Your task to perform on an android device: check battery use Image 0: 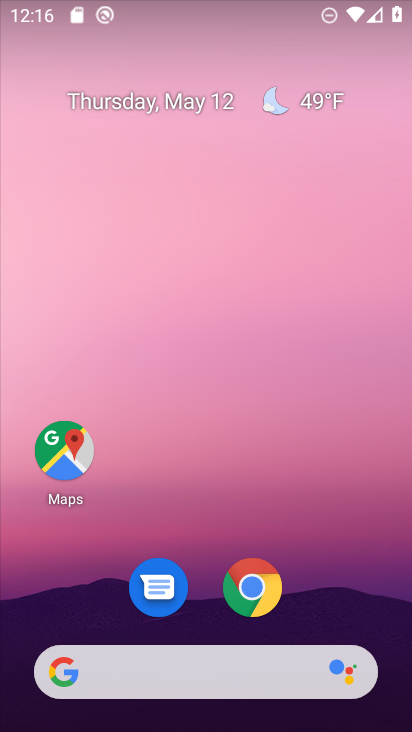
Step 0: drag from (332, 627) to (334, 176)
Your task to perform on an android device: check battery use Image 1: 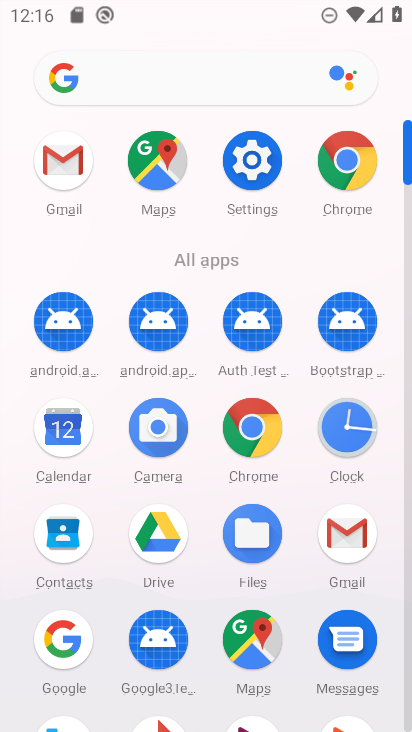
Step 1: click (242, 171)
Your task to perform on an android device: check battery use Image 2: 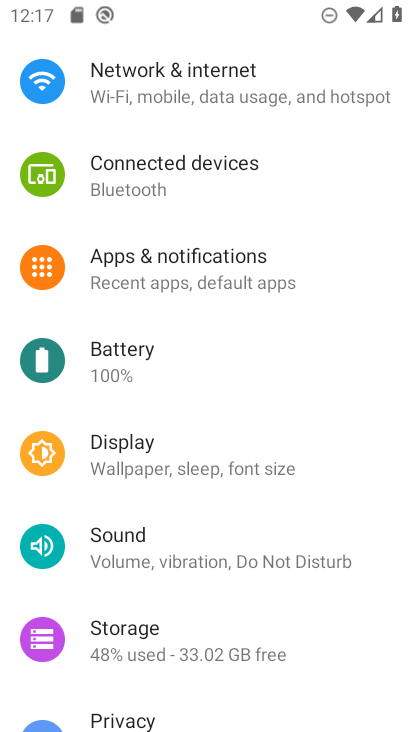
Step 2: click (130, 361)
Your task to perform on an android device: check battery use Image 3: 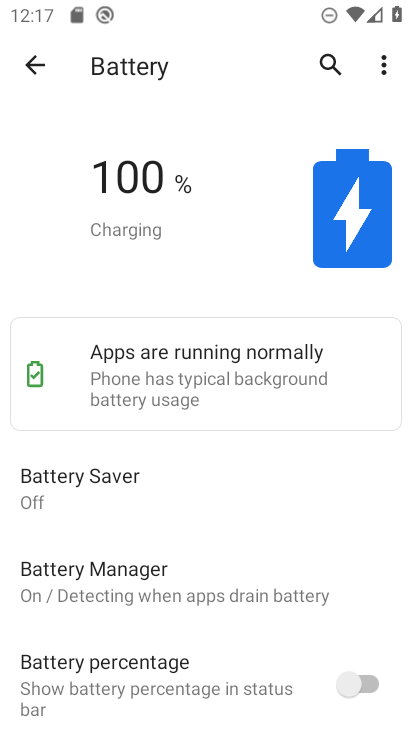
Step 3: task complete